Your task to perform on an android device: Search for seafood restaurants on Google Maps Image 0: 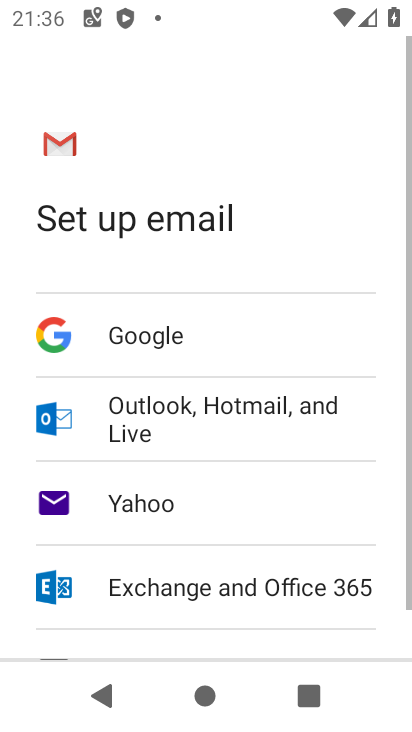
Step 0: press home button
Your task to perform on an android device: Search for seafood restaurants on Google Maps Image 1: 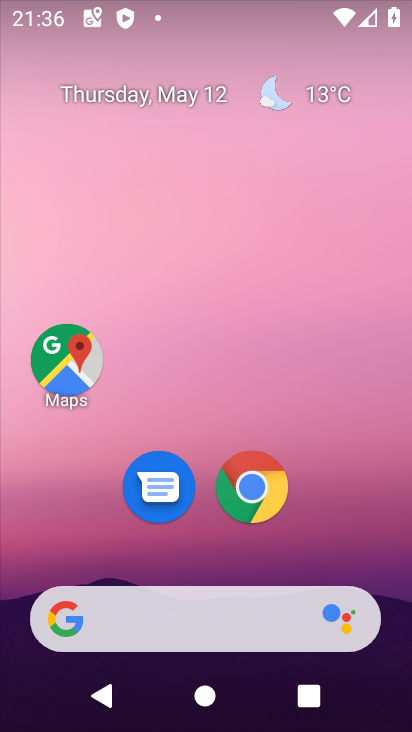
Step 1: click (58, 355)
Your task to perform on an android device: Search for seafood restaurants on Google Maps Image 2: 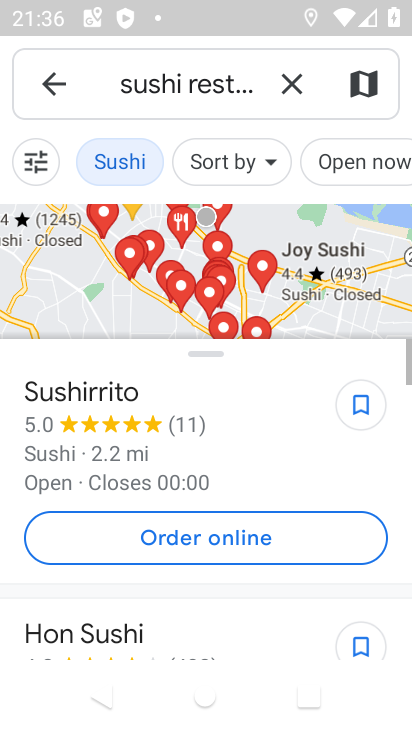
Step 2: click (281, 81)
Your task to perform on an android device: Search for seafood restaurants on Google Maps Image 3: 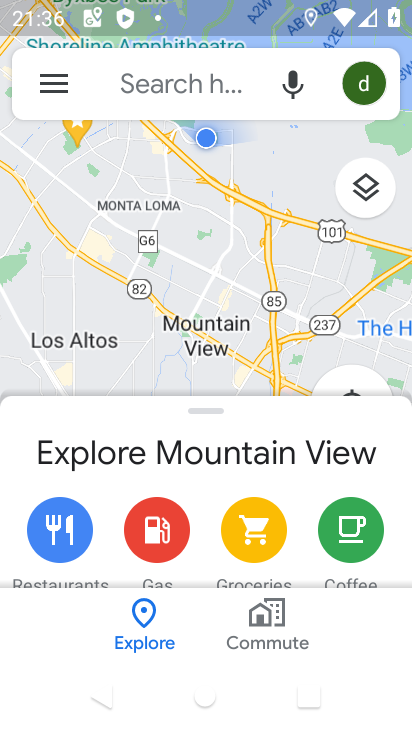
Step 3: click (229, 68)
Your task to perform on an android device: Search for seafood restaurants on Google Maps Image 4: 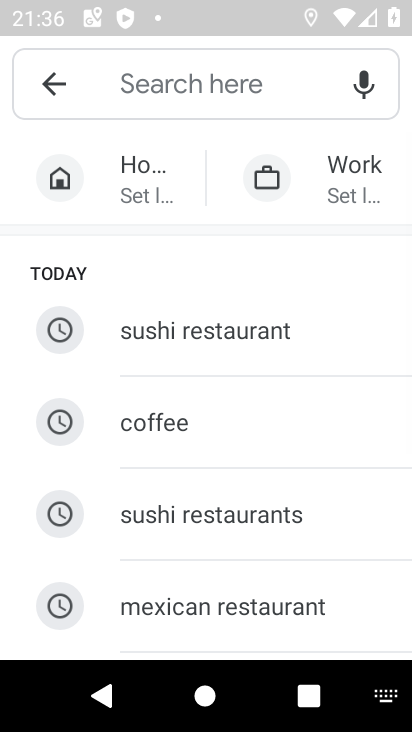
Step 4: drag from (166, 595) to (241, 223)
Your task to perform on an android device: Search for seafood restaurants on Google Maps Image 5: 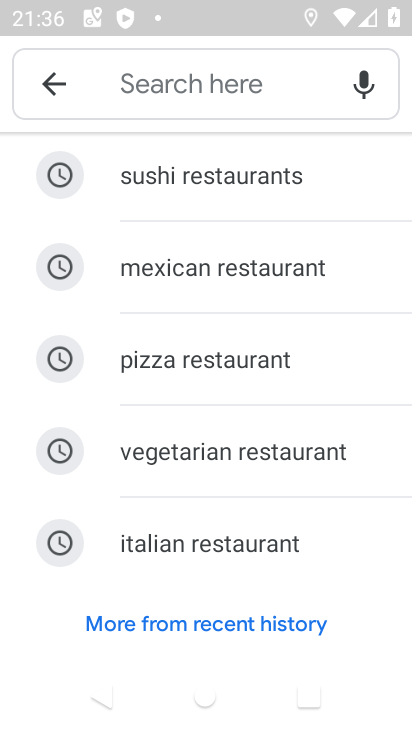
Step 5: click (215, 624)
Your task to perform on an android device: Search for seafood restaurants on Google Maps Image 6: 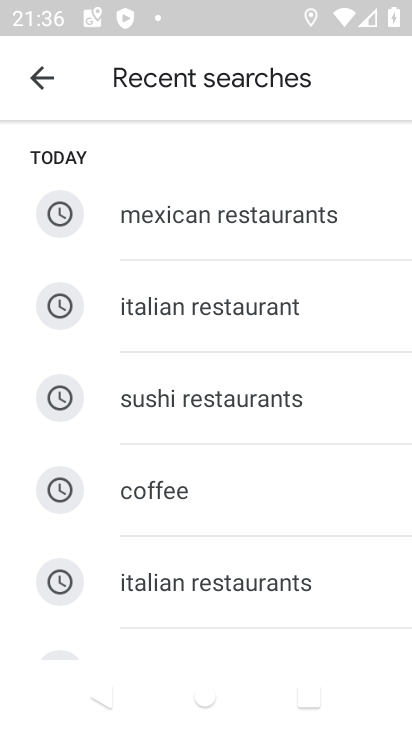
Step 6: drag from (215, 624) to (265, 288)
Your task to perform on an android device: Search for seafood restaurants on Google Maps Image 7: 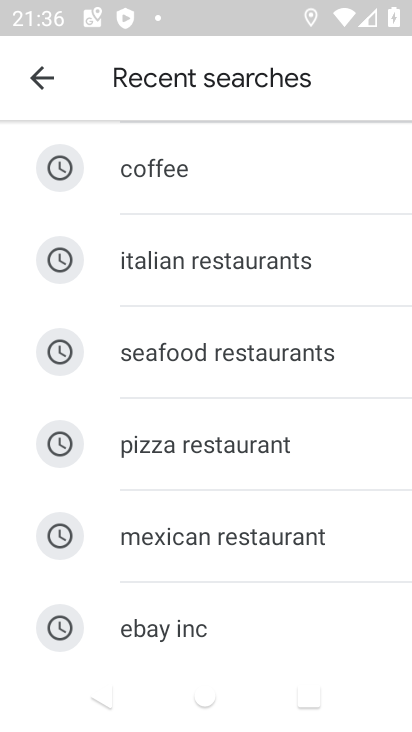
Step 7: drag from (226, 459) to (350, 124)
Your task to perform on an android device: Search for seafood restaurants on Google Maps Image 8: 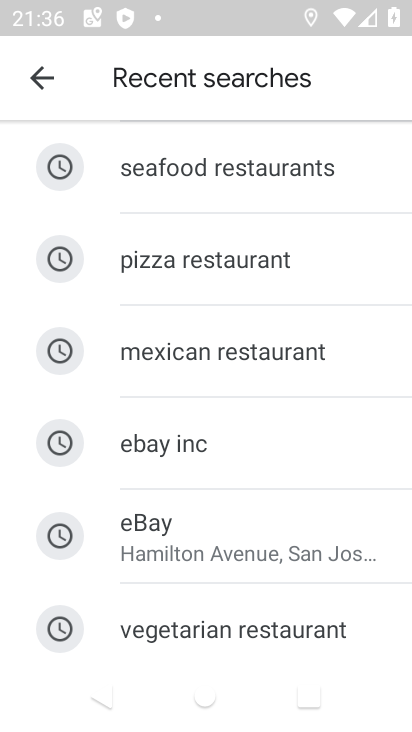
Step 8: click (74, 169)
Your task to perform on an android device: Search for seafood restaurants on Google Maps Image 9: 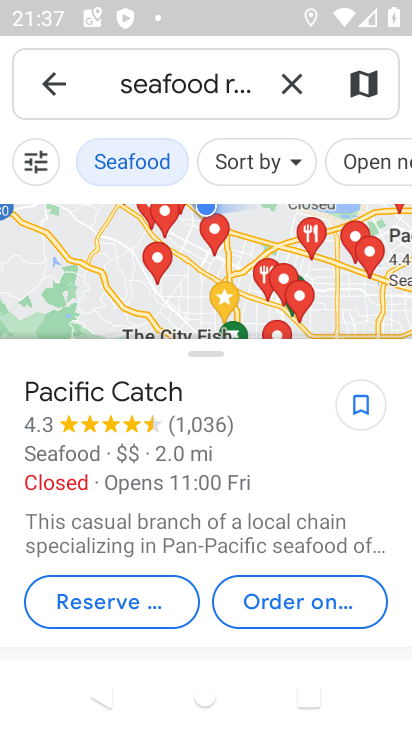
Step 9: task complete